Your task to perform on an android device: remove spam from my inbox in the gmail app Image 0: 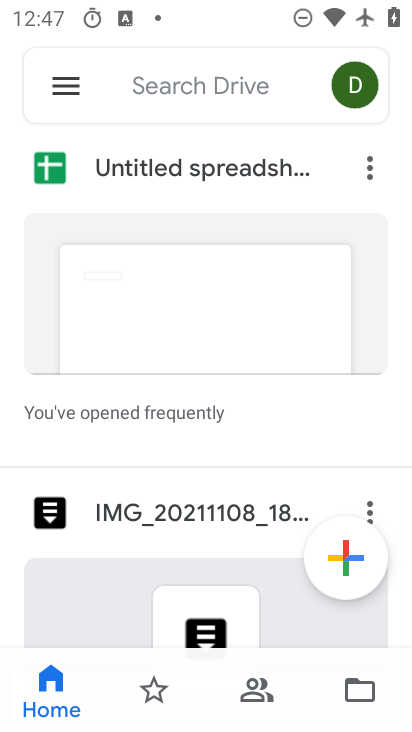
Step 0: press home button
Your task to perform on an android device: remove spam from my inbox in the gmail app Image 1: 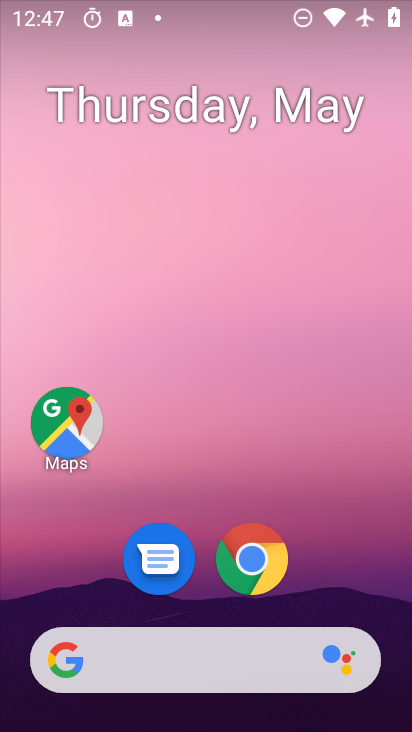
Step 1: drag from (189, 624) to (237, 215)
Your task to perform on an android device: remove spam from my inbox in the gmail app Image 2: 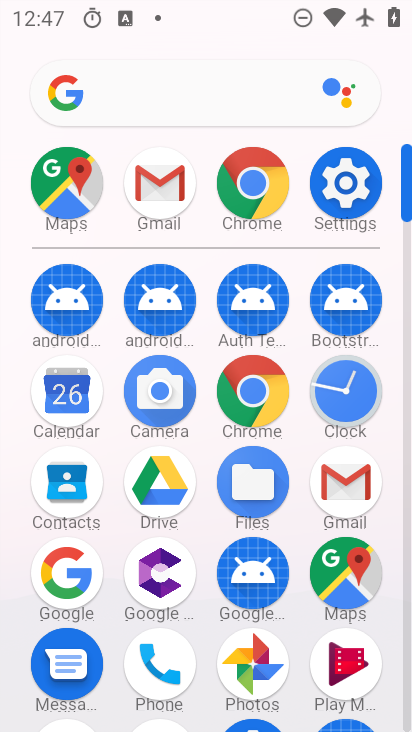
Step 2: click (350, 492)
Your task to perform on an android device: remove spam from my inbox in the gmail app Image 3: 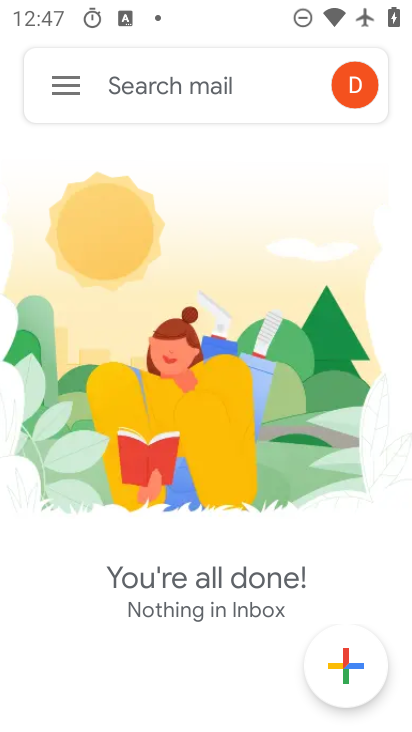
Step 3: click (68, 97)
Your task to perform on an android device: remove spam from my inbox in the gmail app Image 4: 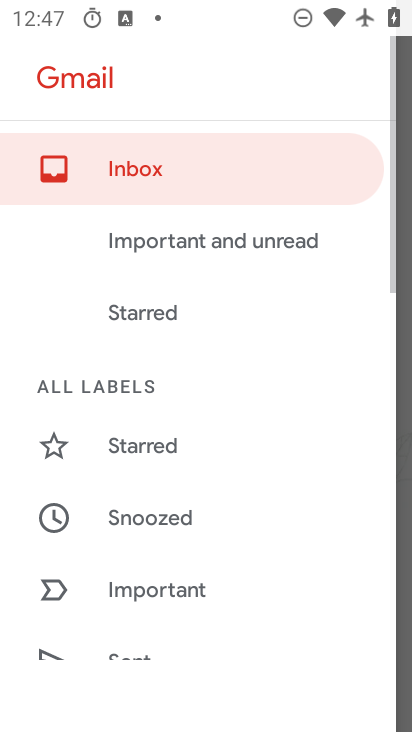
Step 4: drag from (149, 552) to (156, 260)
Your task to perform on an android device: remove spam from my inbox in the gmail app Image 5: 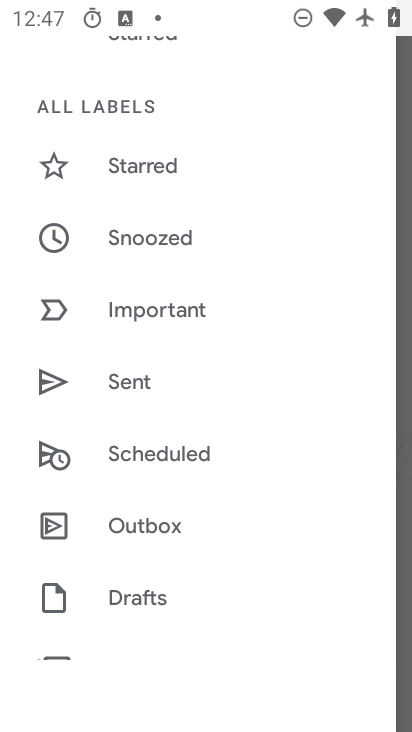
Step 5: drag from (147, 549) to (163, 247)
Your task to perform on an android device: remove spam from my inbox in the gmail app Image 6: 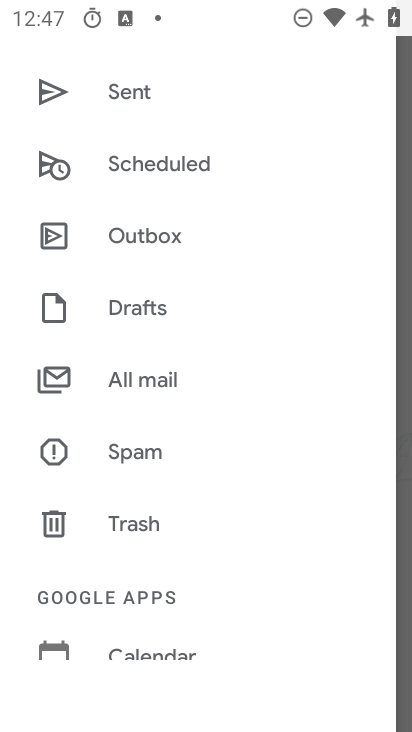
Step 6: click (135, 450)
Your task to perform on an android device: remove spam from my inbox in the gmail app Image 7: 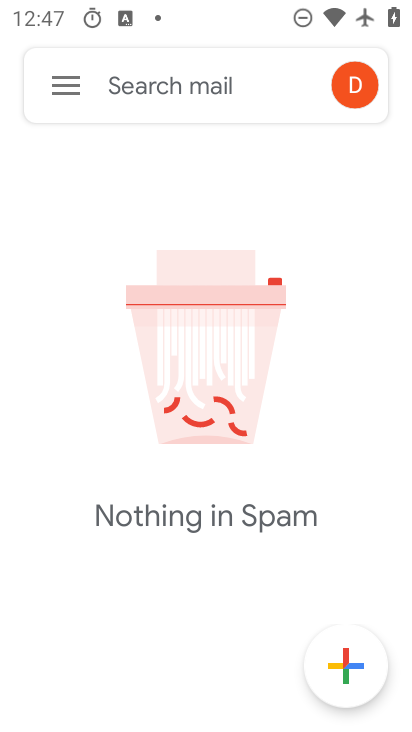
Step 7: task complete